Your task to perform on an android device: Add razer huntsman to the cart on newegg.com Image 0: 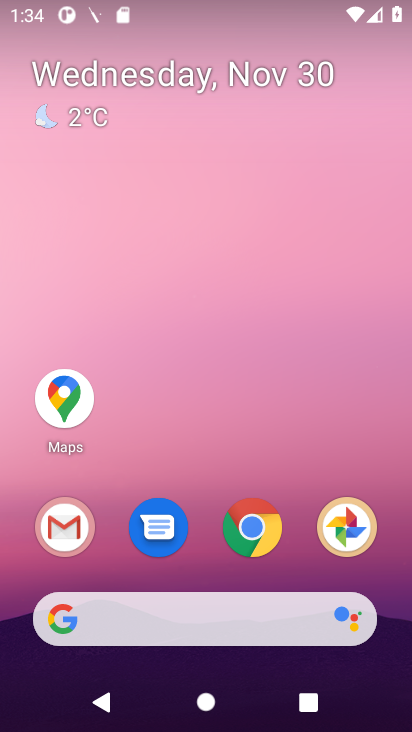
Step 0: click (250, 529)
Your task to perform on an android device: Add razer huntsman to the cart on newegg.com Image 1: 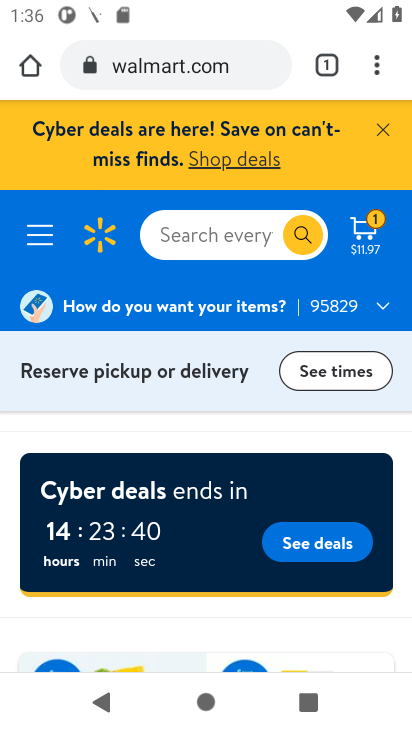
Step 1: task complete